Your task to perform on an android device: Open Android settings Image 0: 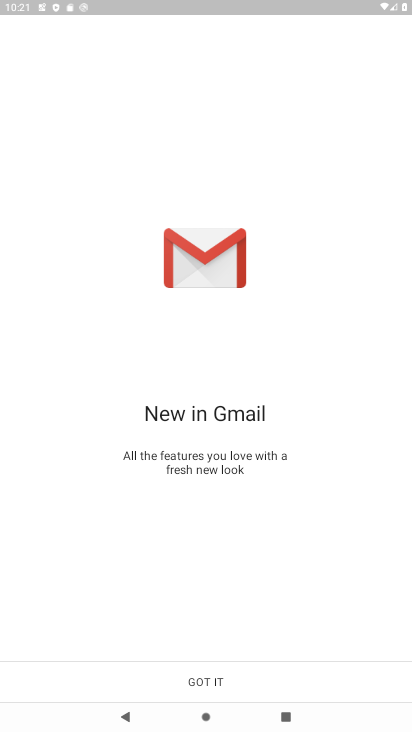
Step 0: click (195, 684)
Your task to perform on an android device: Open Android settings Image 1: 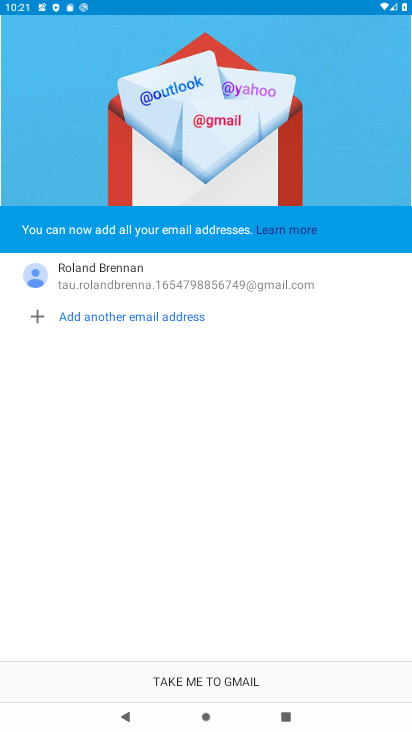
Step 1: click (196, 683)
Your task to perform on an android device: Open Android settings Image 2: 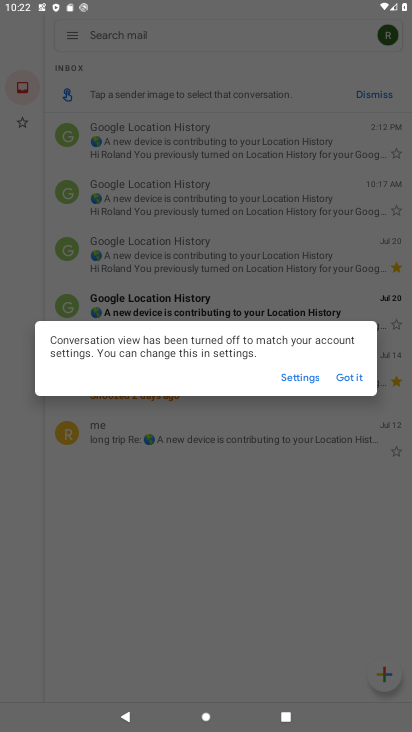
Step 2: click (297, 378)
Your task to perform on an android device: Open Android settings Image 3: 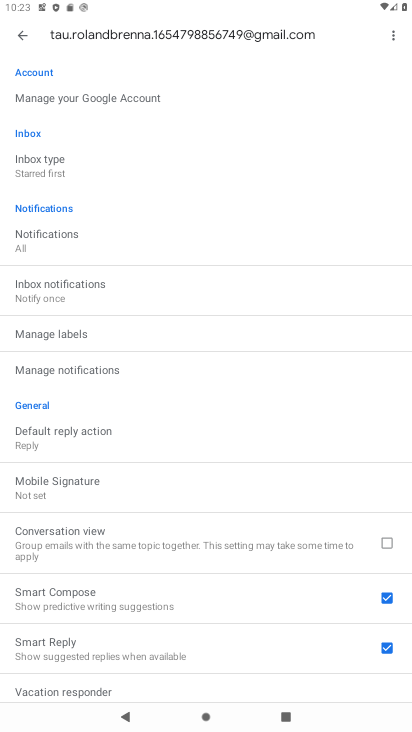
Step 3: task complete